Your task to perform on an android device: Open internet settings Image 0: 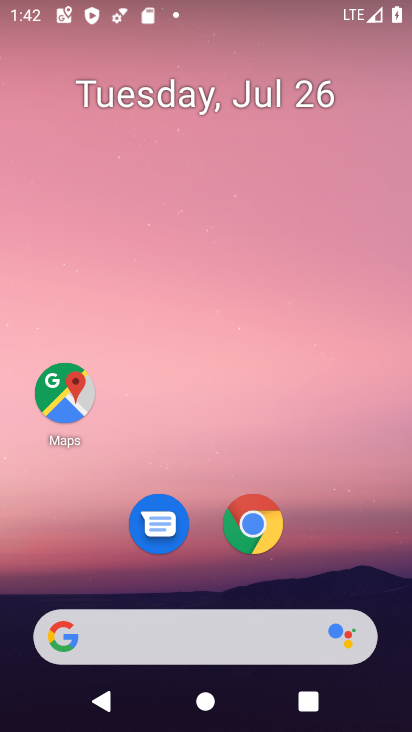
Step 0: drag from (346, 542) to (357, 59)
Your task to perform on an android device: Open internet settings Image 1: 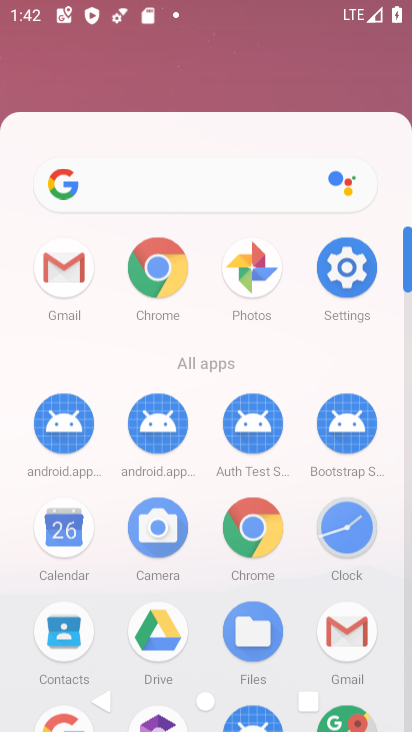
Step 1: click (354, 31)
Your task to perform on an android device: Open internet settings Image 2: 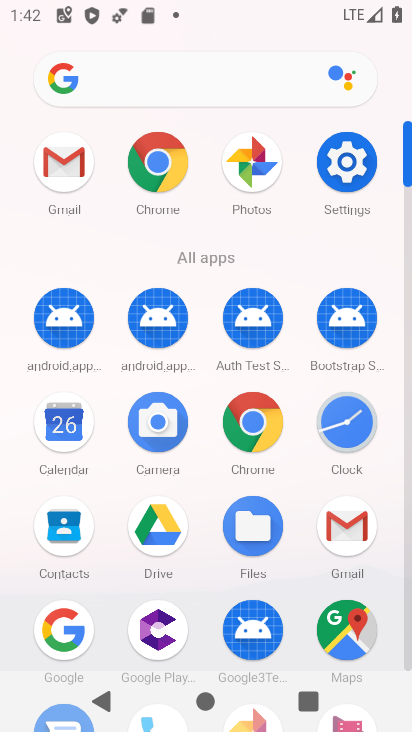
Step 2: click (346, 165)
Your task to perform on an android device: Open internet settings Image 3: 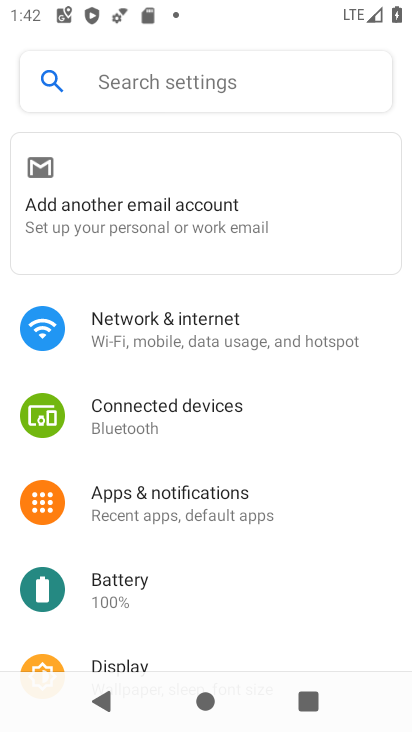
Step 3: click (218, 335)
Your task to perform on an android device: Open internet settings Image 4: 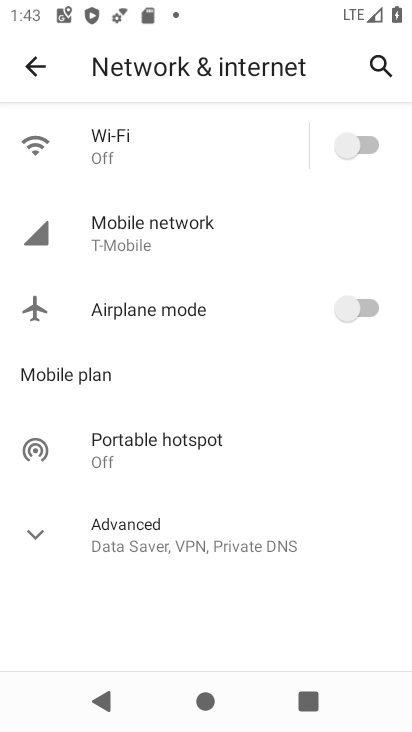
Step 4: task complete